Your task to perform on an android device: empty trash in the gmail app Image 0: 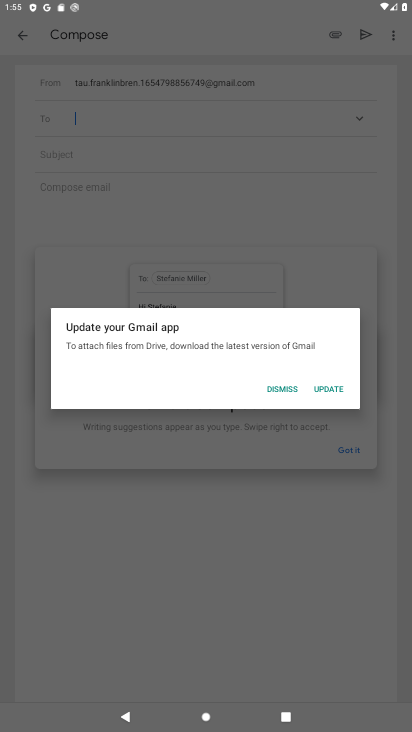
Step 0: press home button
Your task to perform on an android device: empty trash in the gmail app Image 1: 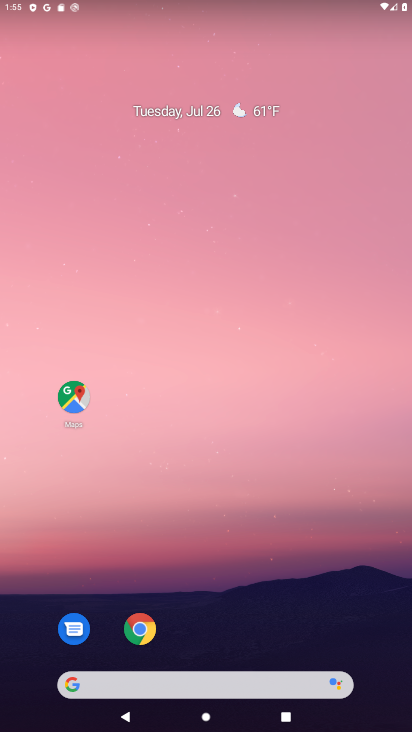
Step 1: click (301, 578)
Your task to perform on an android device: empty trash in the gmail app Image 2: 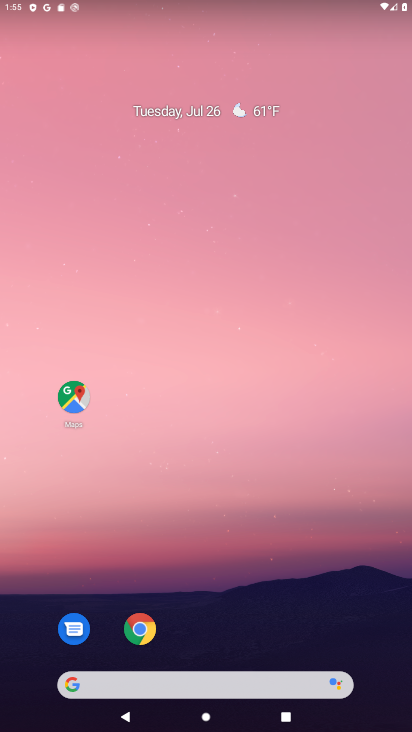
Step 2: drag from (301, 581) to (270, 126)
Your task to perform on an android device: empty trash in the gmail app Image 3: 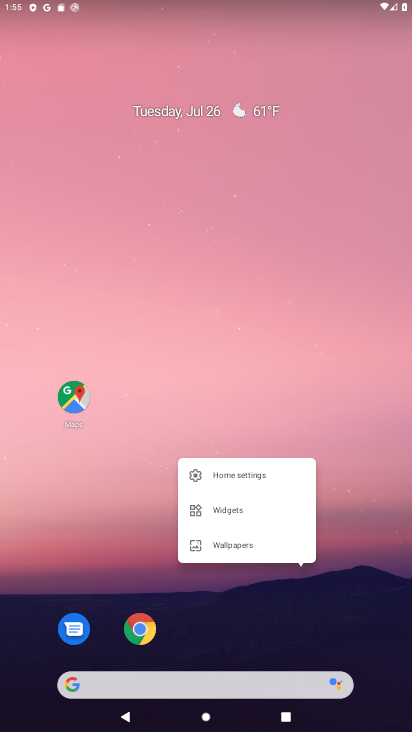
Step 3: click (398, 595)
Your task to perform on an android device: empty trash in the gmail app Image 4: 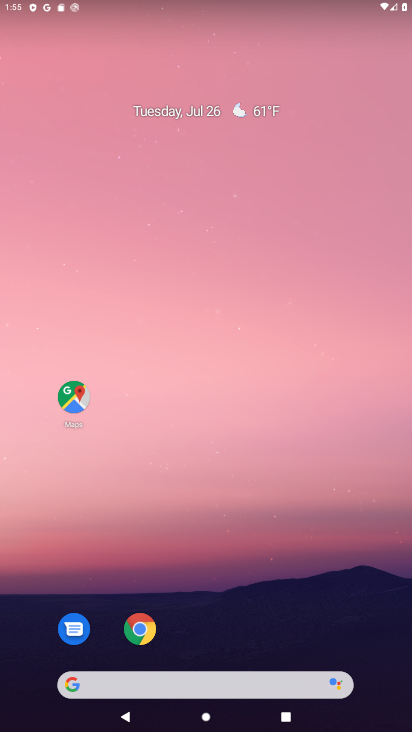
Step 4: drag from (388, 596) to (348, 155)
Your task to perform on an android device: empty trash in the gmail app Image 5: 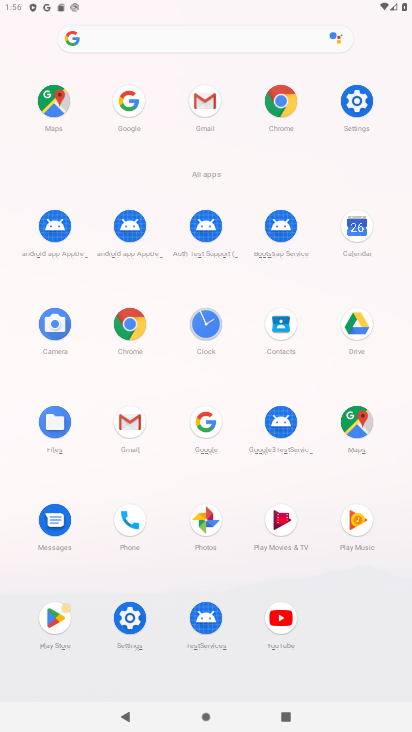
Step 5: click (124, 415)
Your task to perform on an android device: empty trash in the gmail app Image 6: 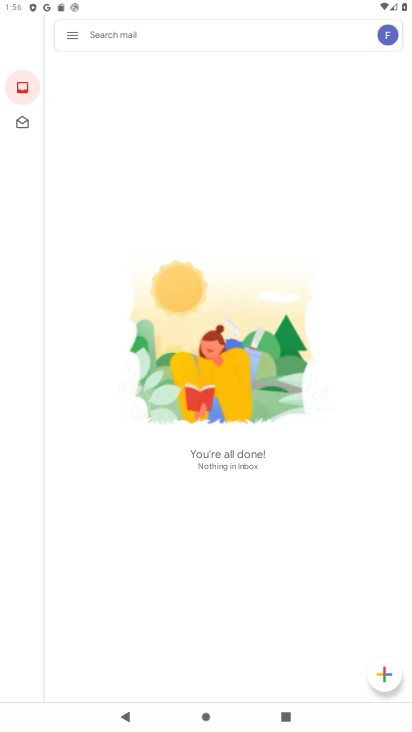
Step 6: click (70, 38)
Your task to perform on an android device: empty trash in the gmail app Image 7: 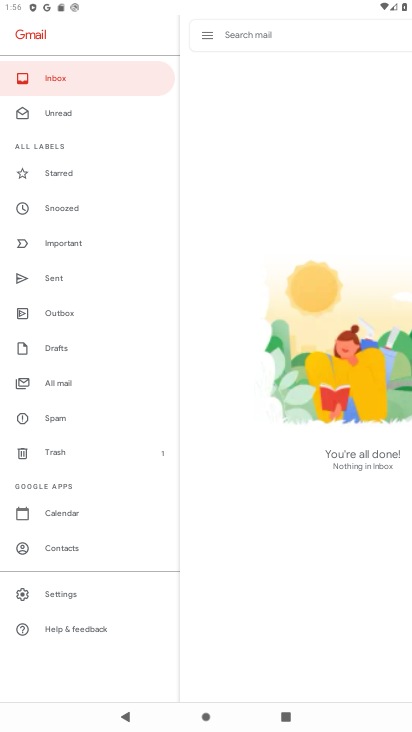
Step 7: click (55, 446)
Your task to perform on an android device: empty trash in the gmail app Image 8: 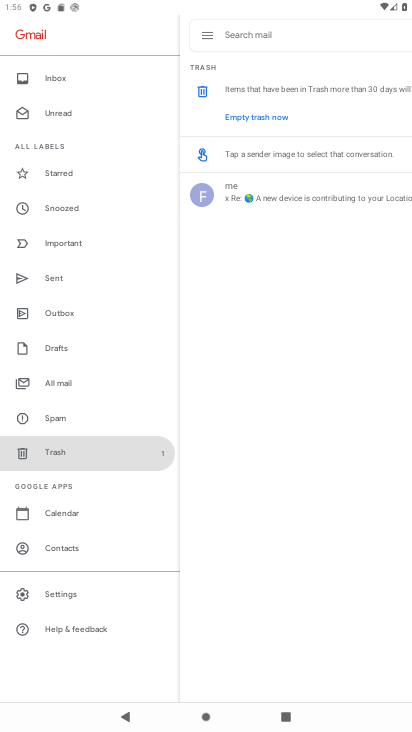
Step 8: click (274, 114)
Your task to perform on an android device: empty trash in the gmail app Image 9: 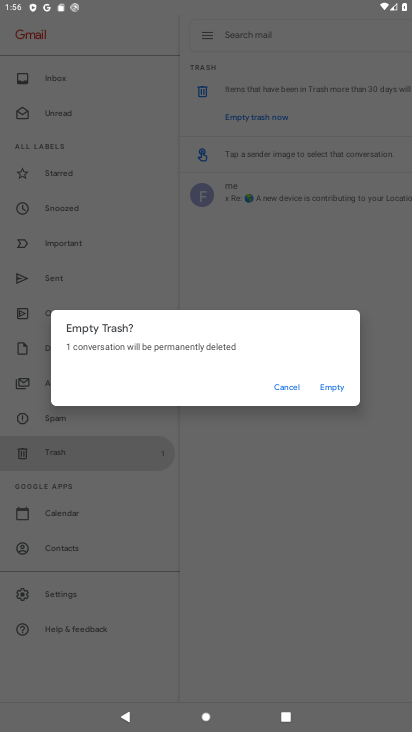
Step 9: click (337, 383)
Your task to perform on an android device: empty trash in the gmail app Image 10: 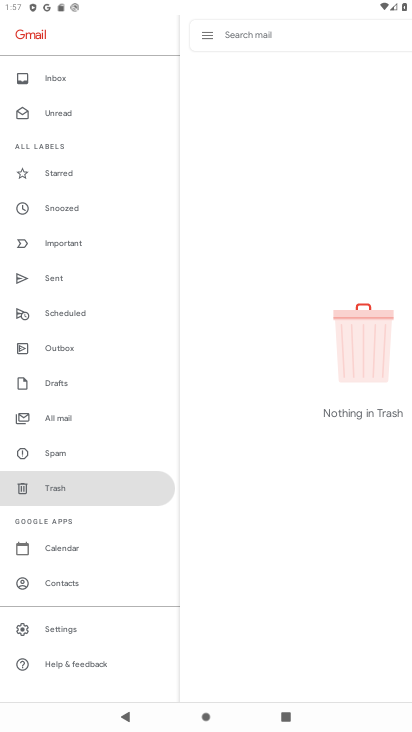
Step 10: task complete